Your task to perform on an android device: clear history in the chrome app Image 0: 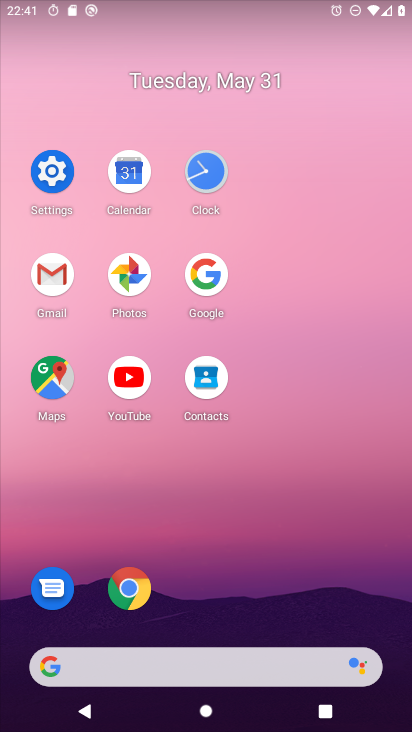
Step 0: click (131, 598)
Your task to perform on an android device: clear history in the chrome app Image 1: 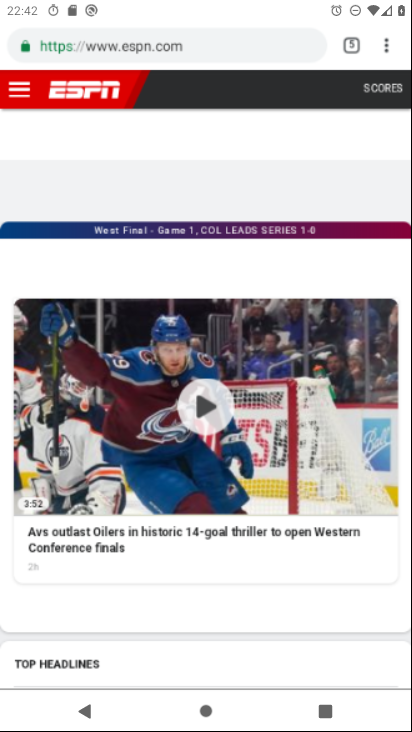
Step 1: click (387, 45)
Your task to perform on an android device: clear history in the chrome app Image 2: 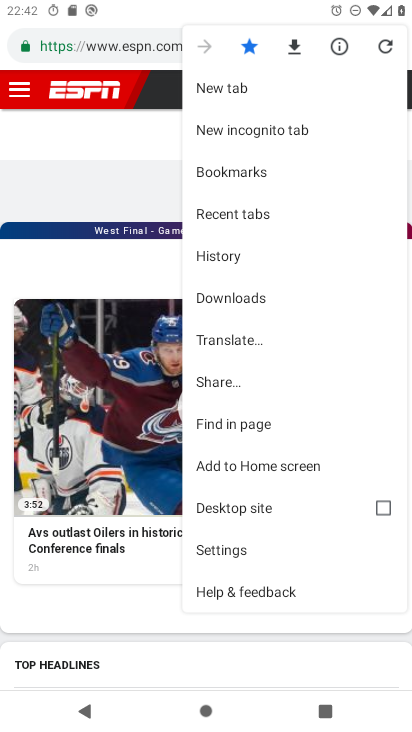
Step 2: click (223, 547)
Your task to perform on an android device: clear history in the chrome app Image 3: 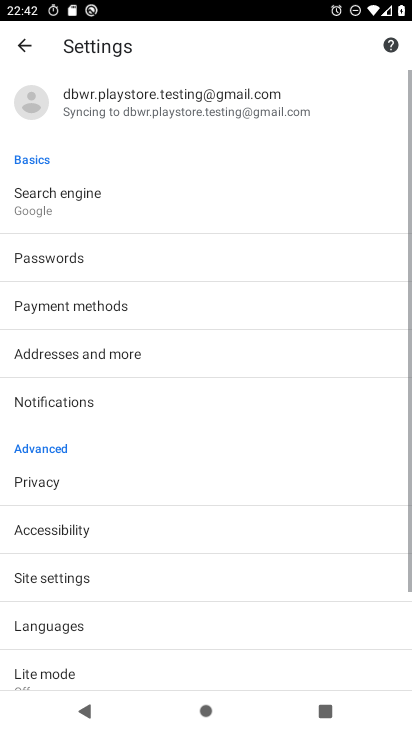
Step 3: drag from (180, 606) to (167, 243)
Your task to perform on an android device: clear history in the chrome app Image 4: 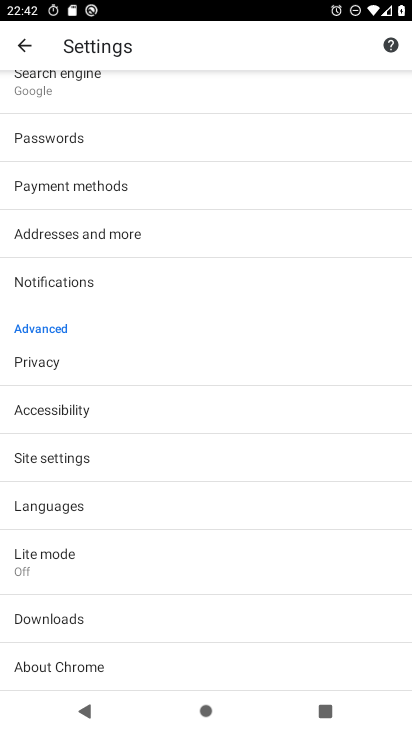
Step 4: drag from (139, 147) to (165, 562)
Your task to perform on an android device: clear history in the chrome app Image 5: 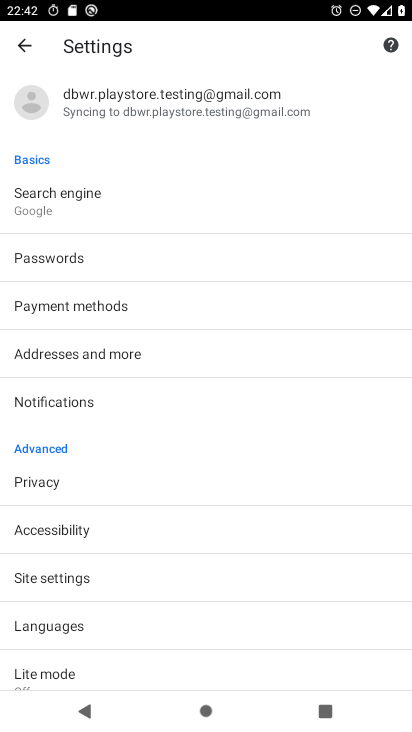
Step 5: drag from (165, 576) to (153, 284)
Your task to perform on an android device: clear history in the chrome app Image 6: 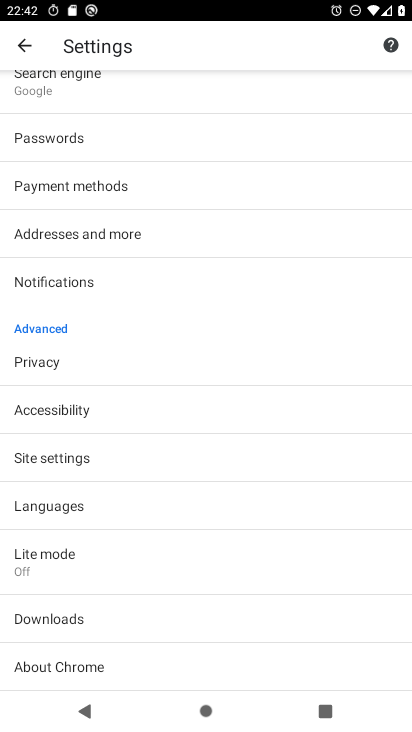
Step 6: click (62, 372)
Your task to perform on an android device: clear history in the chrome app Image 7: 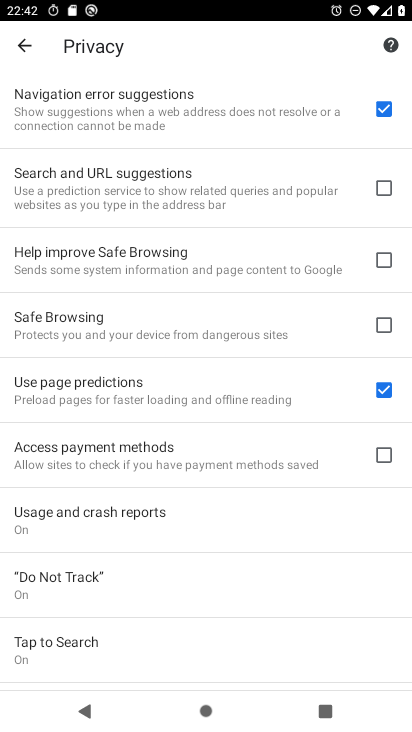
Step 7: drag from (261, 558) to (260, 223)
Your task to perform on an android device: clear history in the chrome app Image 8: 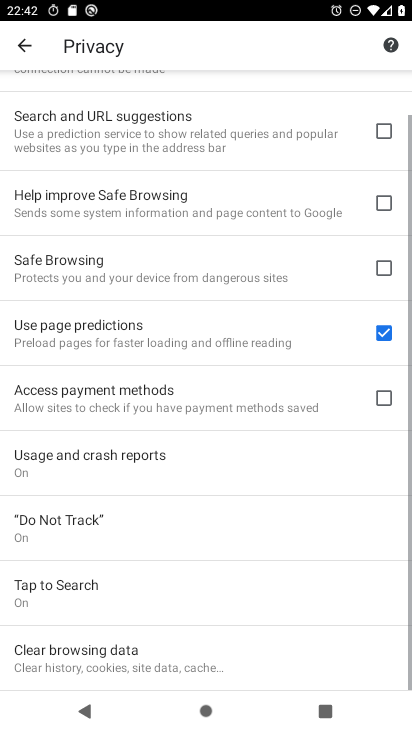
Step 8: click (159, 655)
Your task to perform on an android device: clear history in the chrome app Image 9: 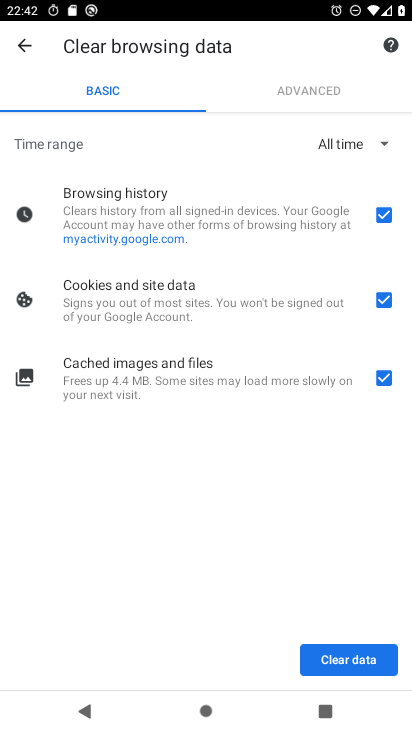
Step 9: click (344, 659)
Your task to perform on an android device: clear history in the chrome app Image 10: 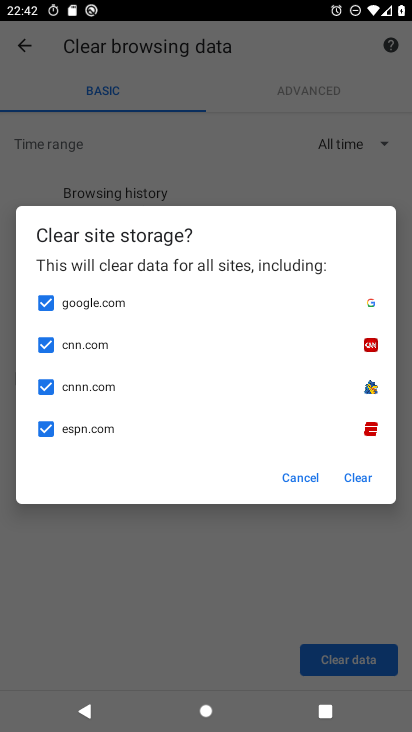
Step 10: click (364, 482)
Your task to perform on an android device: clear history in the chrome app Image 11: 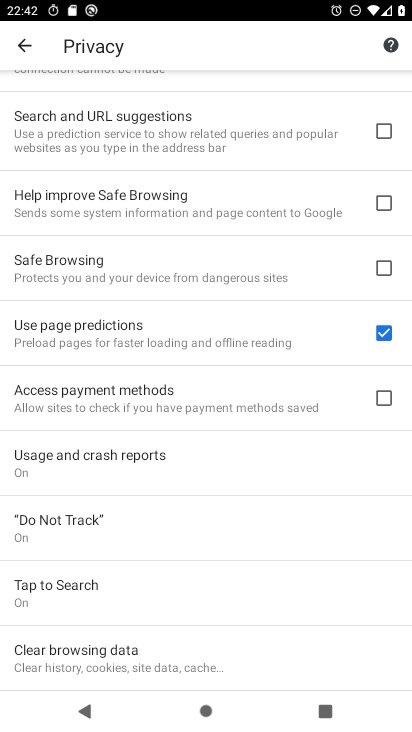
Step 11: drag from (304, 602) to (283, 269)
Your task to perform on an android device: clear history in the chrome app Image 12: 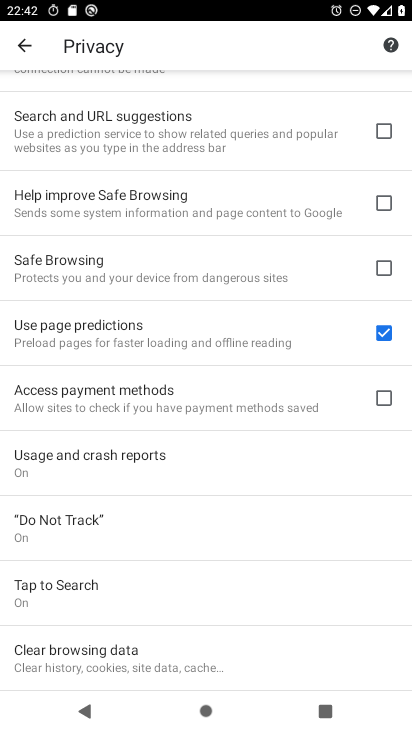
Step 12: drag from (250, 528) to (261, 88)
Your task to perform on an android device: clear history in the chrome app Image 13: 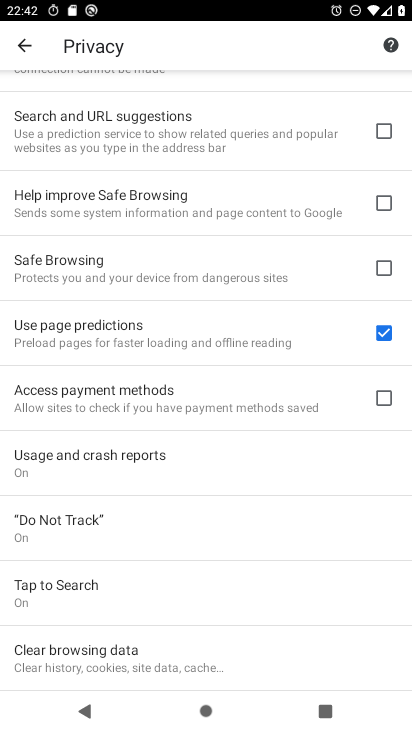
Step 13: click (184, 663)
Your task to perform on an android device: clear history in the chrome app Image 14: 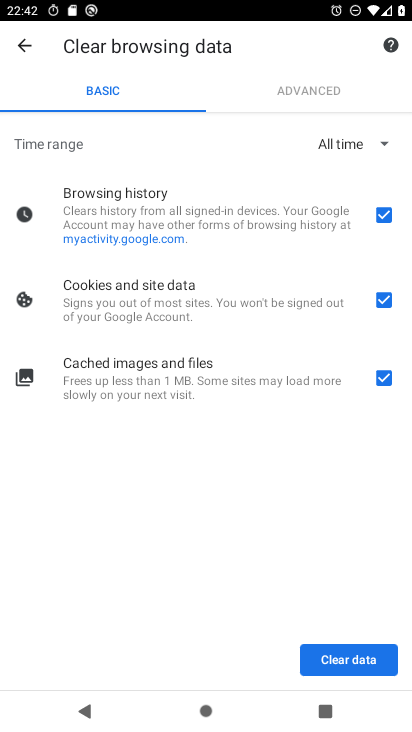
Step 14: click (351, 666)
Your task to perform on an android device: clear history in the chrome app Image 15: 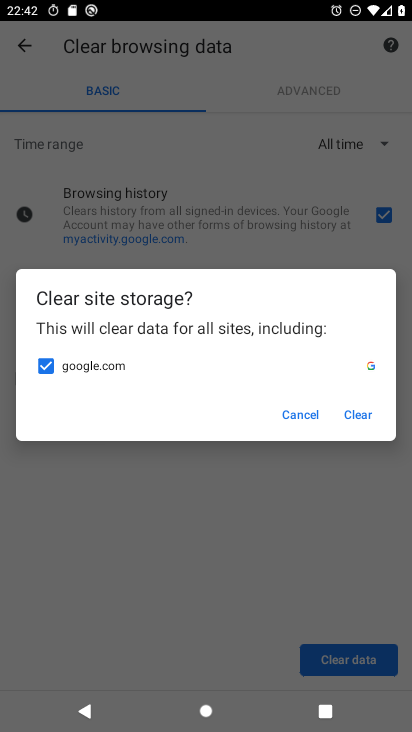
Step 15: click (366, 433)
Your task to perform on an android device: clear history in the chrome app Image 16: 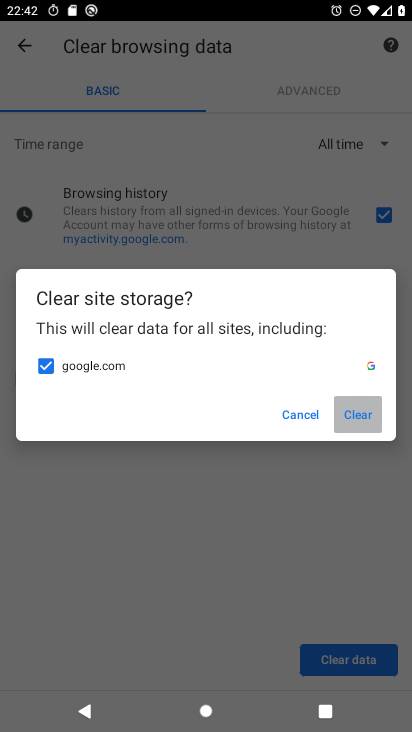
Step 16: click (359, 414)
Your task to perform on an android device: clear history in the chrome app Image 17: 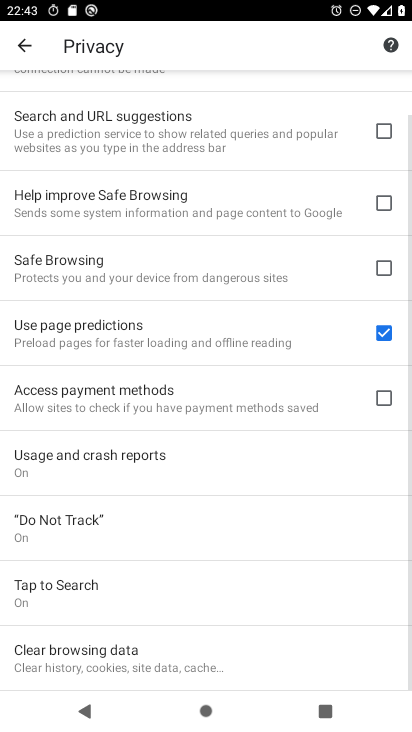
Step 17: task complete